Your task to perform on an android device: Open display settings Image 0: 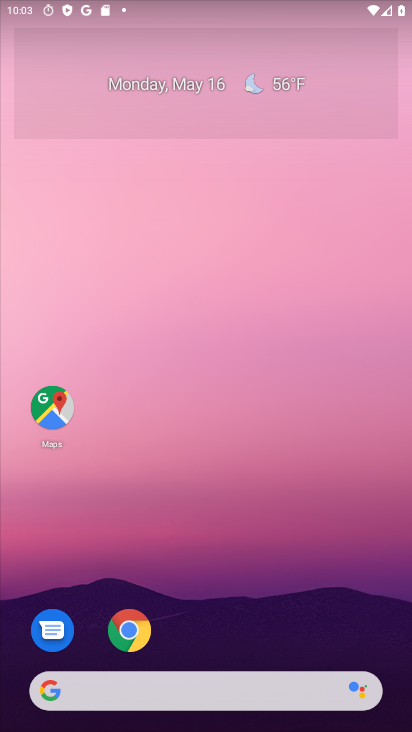
Step 0: drag from (215, 591) to (286, 0)
Your task to perform on an android device: Open display settings Image 1: 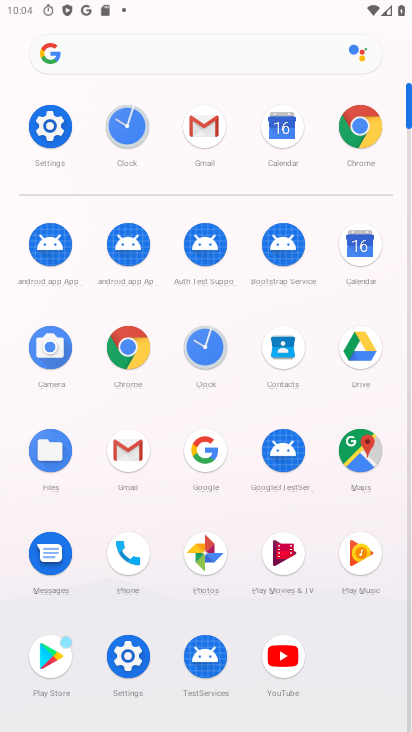
Step 1: click (53, 135)
Your task to perform on an android device: Open display settings Image 2: 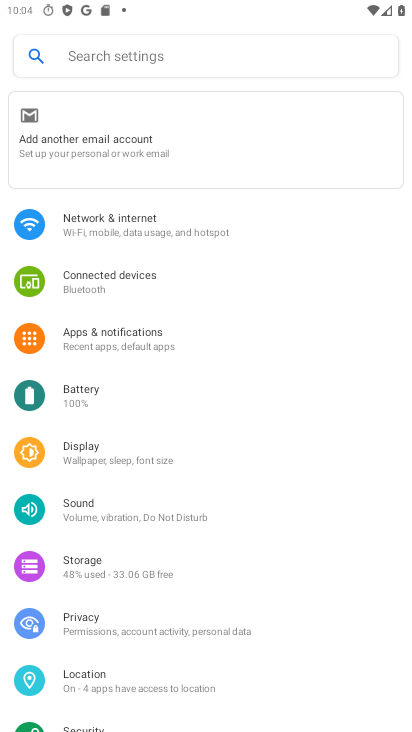
Step 2: click (114, 458)
Your task to perform on an android device: Open display settings Image 3: 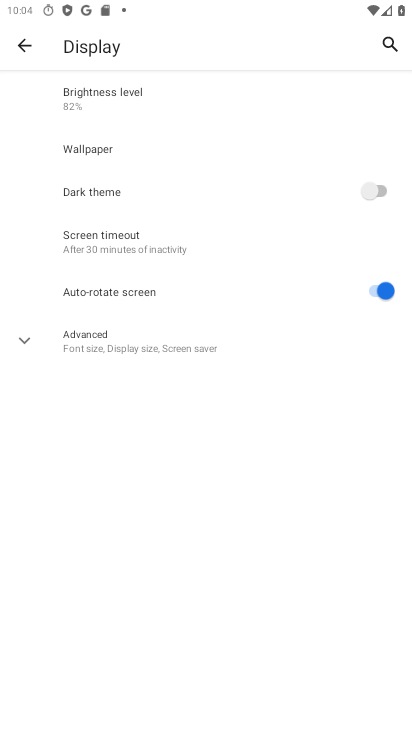
Step 3: task complete